Your task to perform on an android device: Open Wikipedia Image 0: 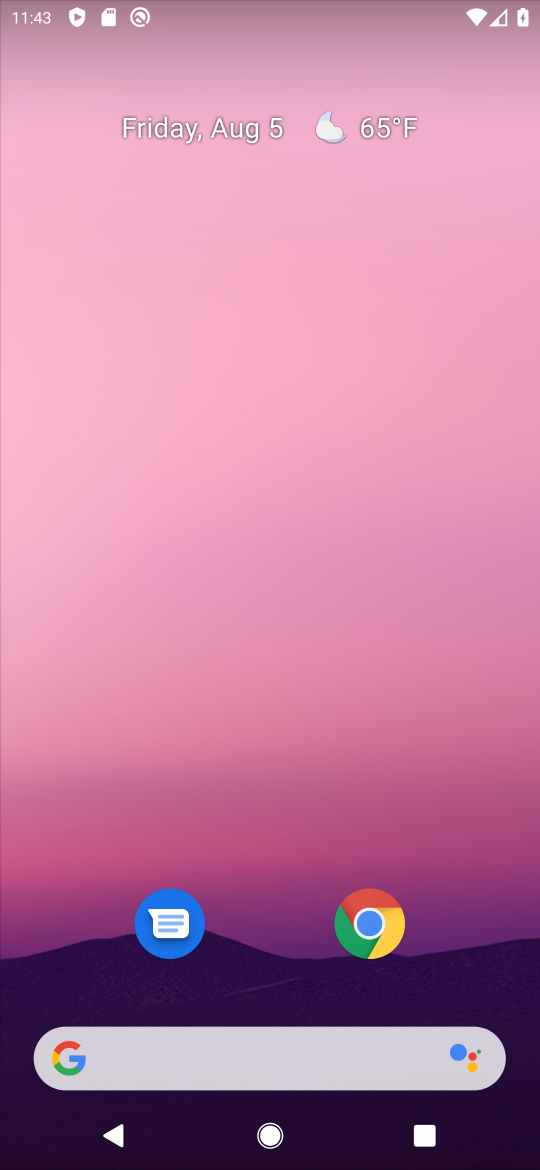
Step 0: click (378, 912)
Your task to perform on an android device: Open Wikipedia Image 1: 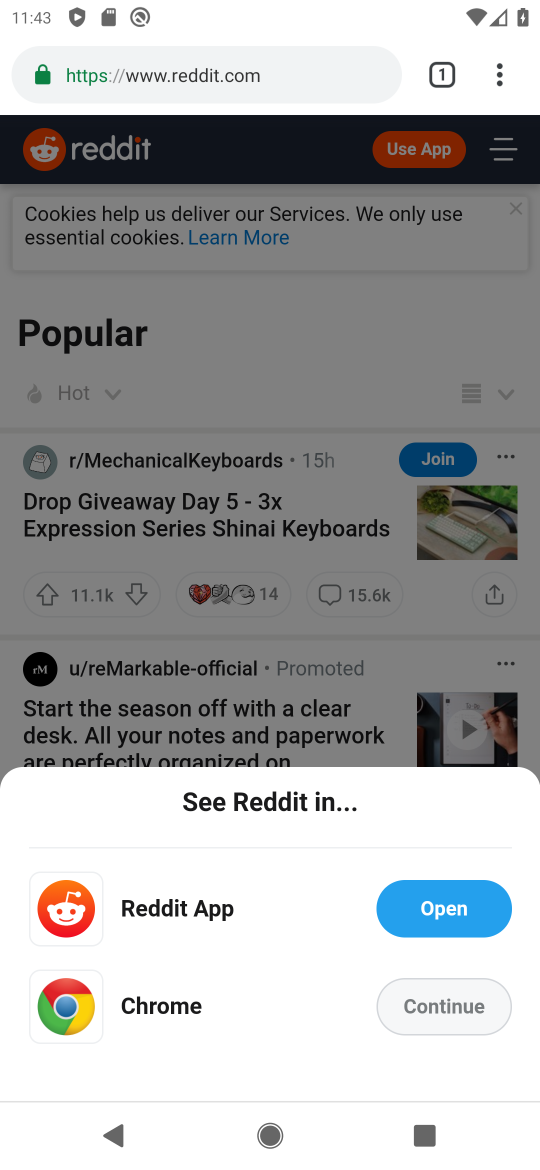
Step 1: click (451, 64)
Your task to perform on an android device: Open Wikipedia Image 2: 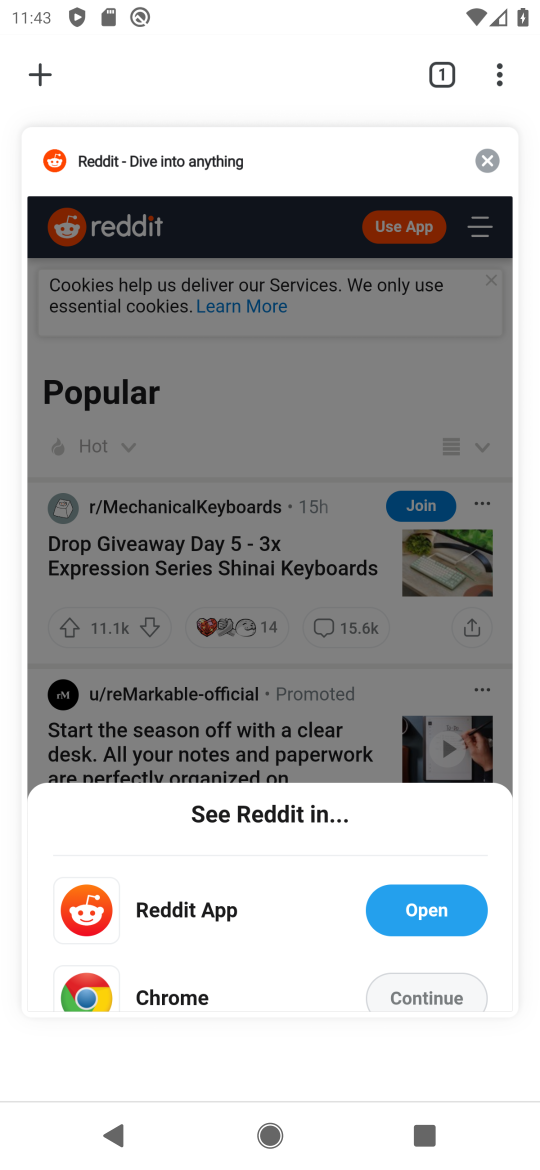
Step 2: click (43, 68)
Your task to perform on an android device: Open Wikipedia Image 3: 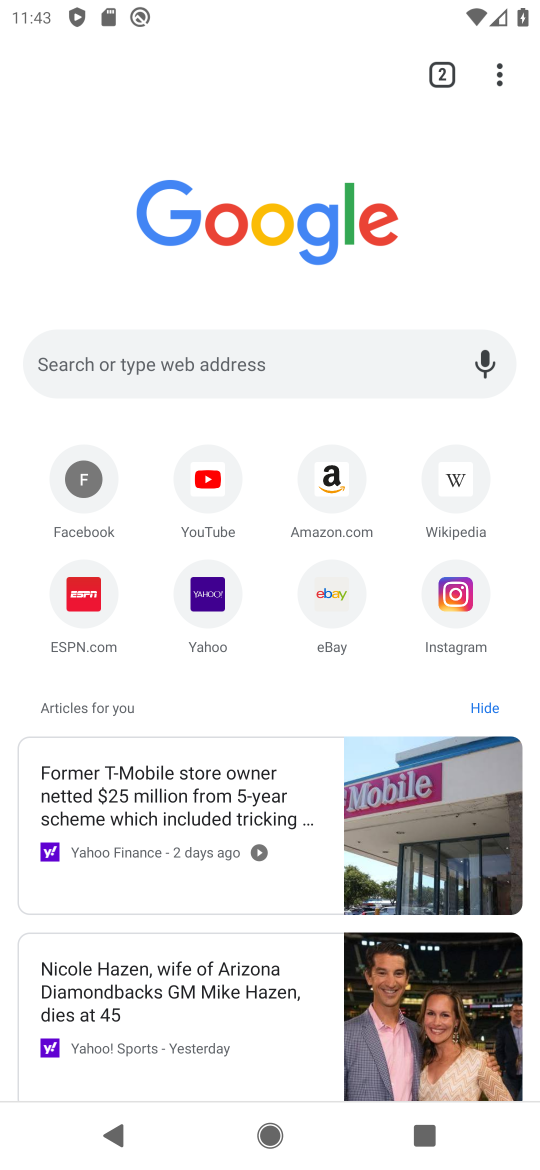
Step 3: click (460, 478)
Your task to perform on an android device: Open Wikipedia Image 4: 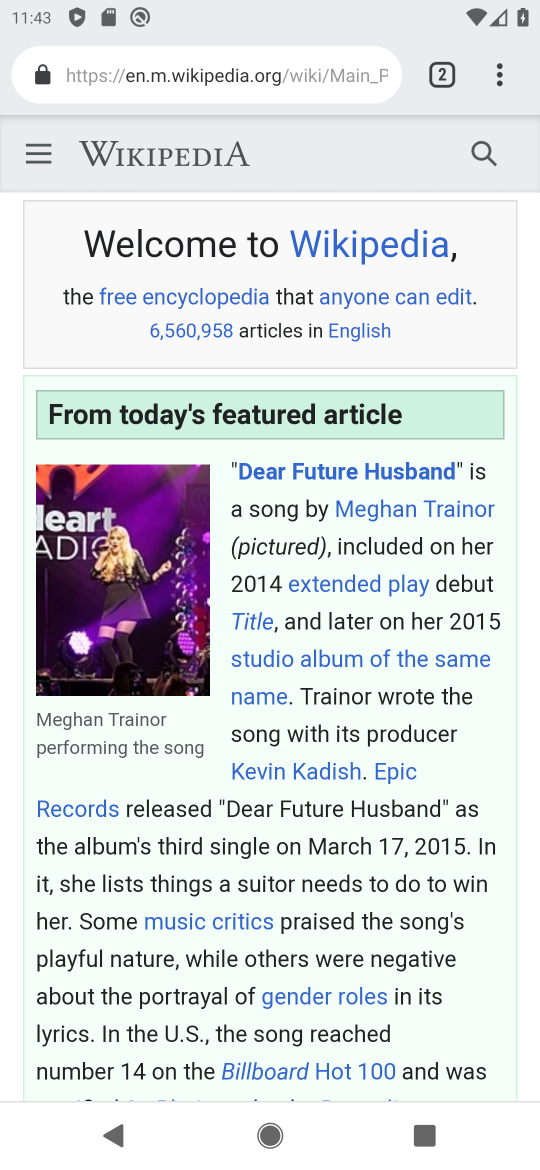
Step 4: task complete